Your task to perform on an android device: toggle sleep mode Image 0: 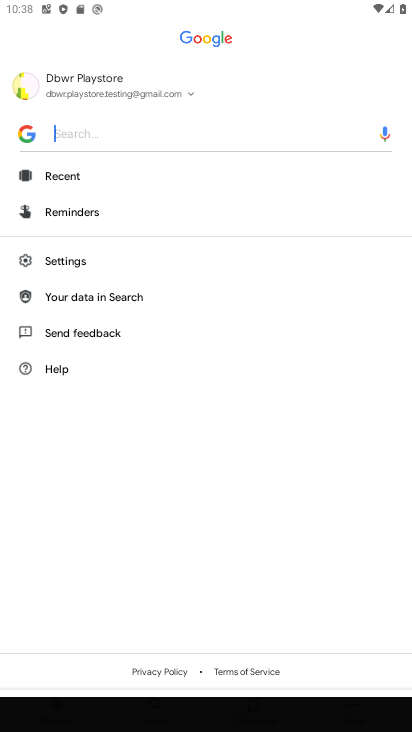
Step 0: drag from (277, 675) to (230, 126)
Your task to perform on an android device: toggle sleep mode Image 1: 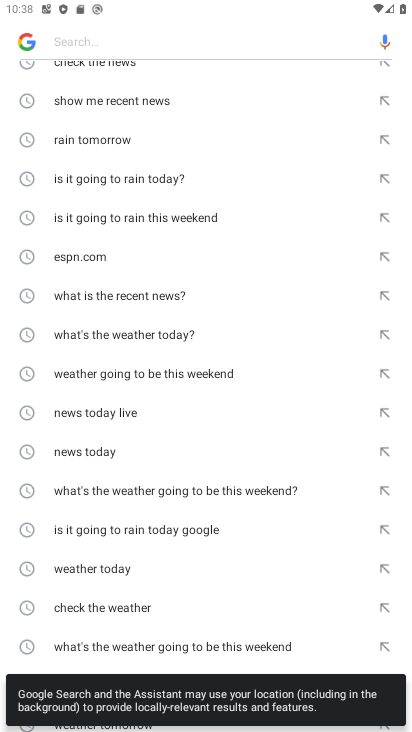
Step 1: press back button
Your task to perform on an android device: toggle sleep mode Image 2: 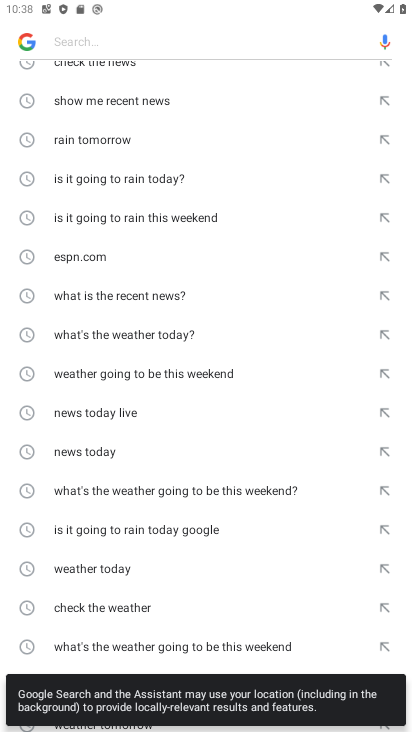
Step 2: press back button
Your task to perform on an android device: toggle sleep mode Image 3: 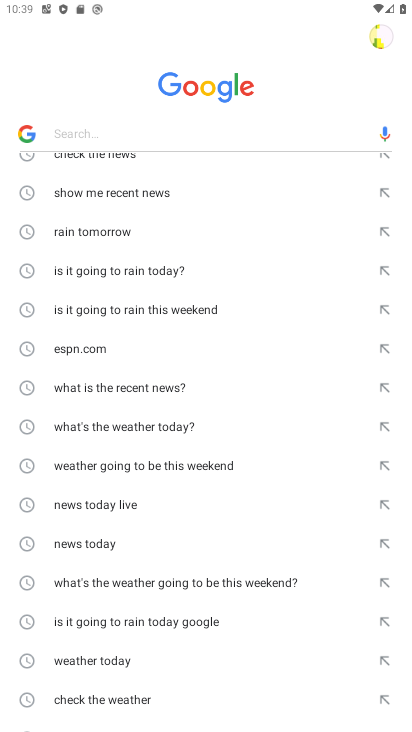
Step 3: press home button
Your task to perform on an android device: toggle sleep mode Image 4: 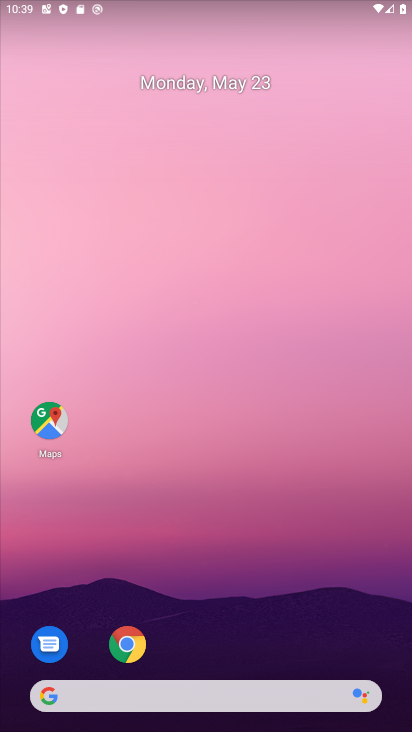
Step 4: drag from (259, 478) to (198, 58)
Your task to perform on an android device: toggle sleep mode Image 5: 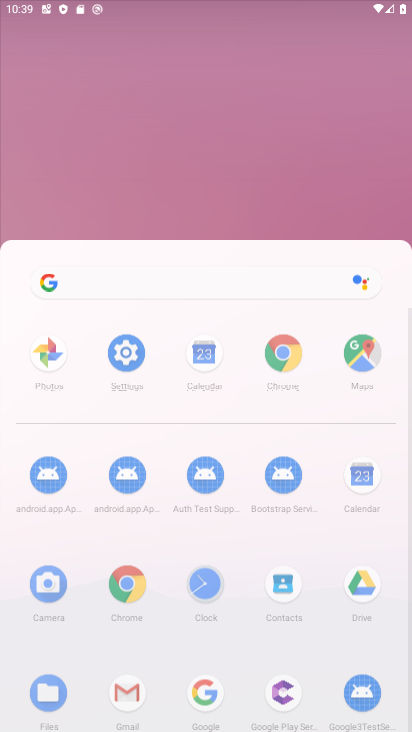
Step 5: drag from (214, 163) to (194, 3)
Your task to perform on an android device: toggle sleep mode Image 6: 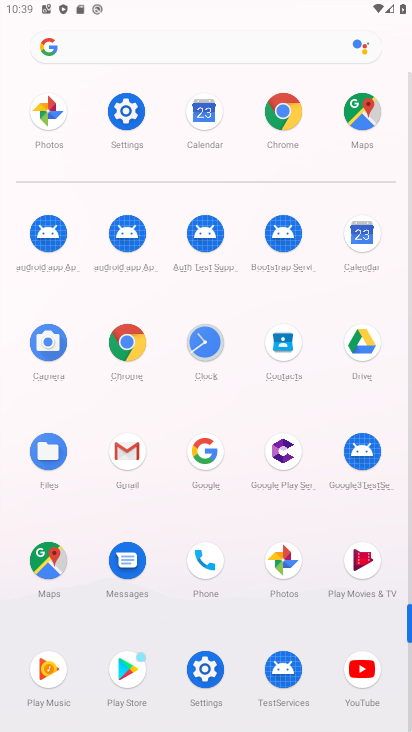
Step 6: click (125, 110)
Your task to perform on an android device: toggle sleep mode Image 7: 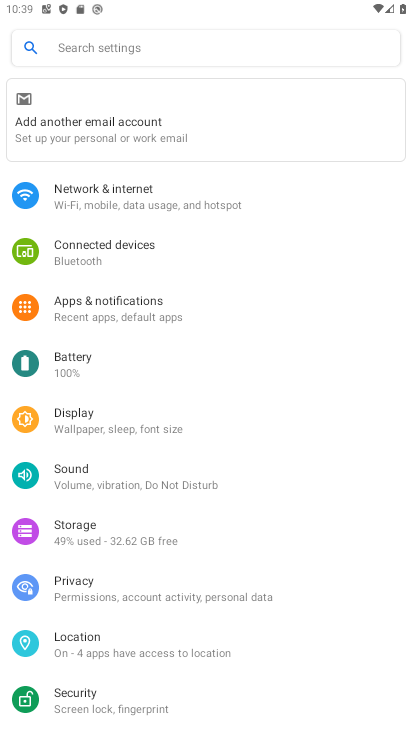
Step 7: click (82, 409)
Your task to perform on an android device: toggle sleep mode Image 8: 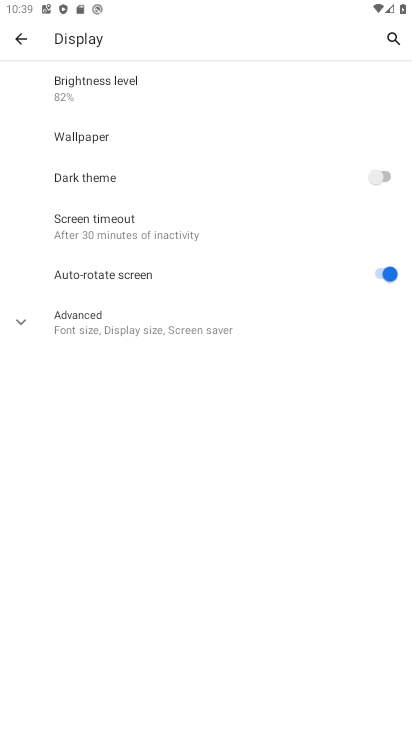
Step 8: click (92, 224)
Your task to perform on an android device: toggle sleep mode Image 9: 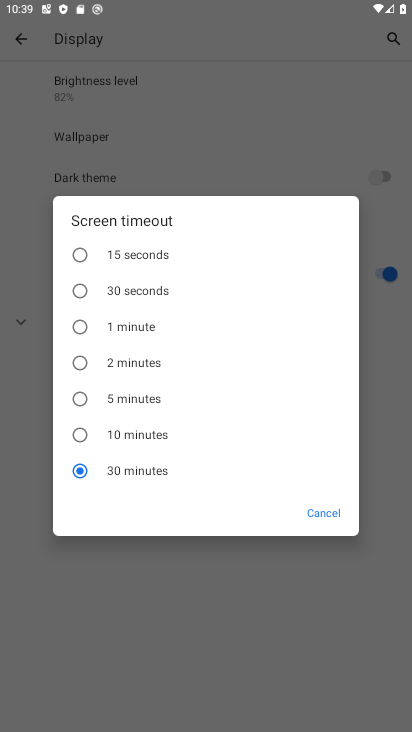
Step 9: click (78, 368)
Your task to perform on an android device: toggle sleep mode Image 10: 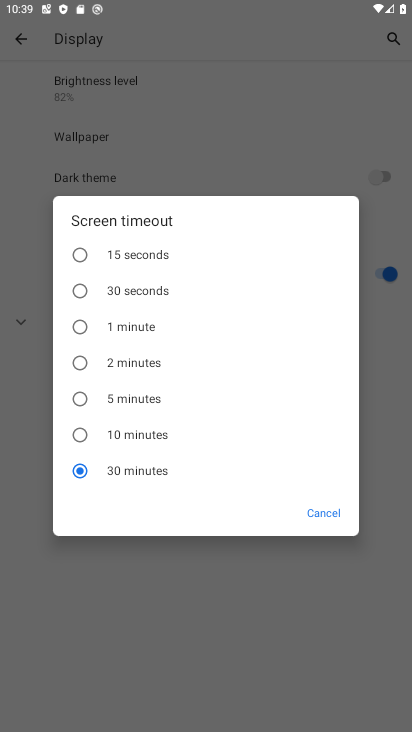
Step 10: click (78, 368)
Your task to perform on an android device: toggle sleep mode Image 11: 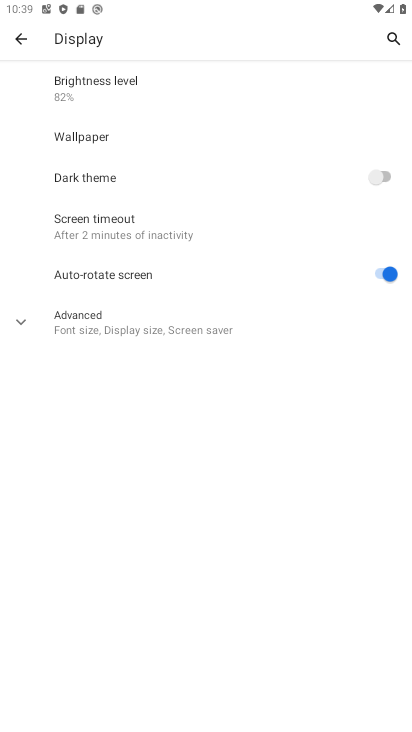
Step 11: click (78, 364)
Your task to perform on an android device: toggle sleep mode Image 12: 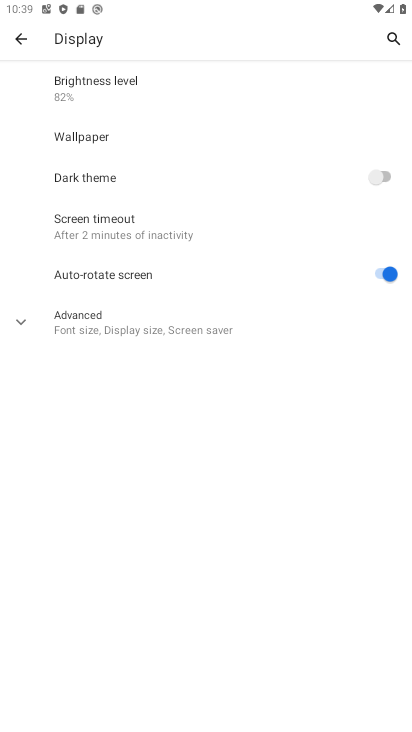
Step 12: task complete